Your task to perform on an android device: turn on airplane mode Image 0: 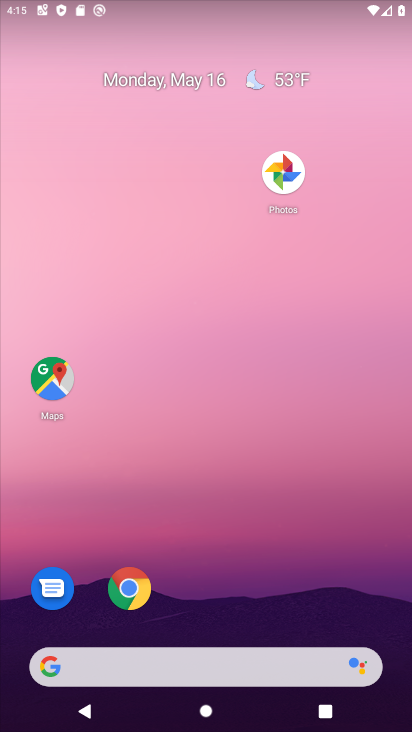
Step 0: drag from (176, 13) to (162, 673)
Your task to perform on an android device: turn on airplane mode Image 1: 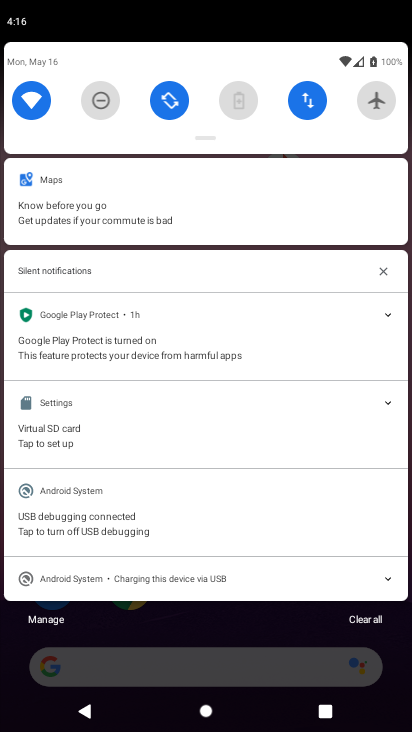
Step 1: click (383, 91)
Your task to perform on an android device: turn on airplane mode Image 2: 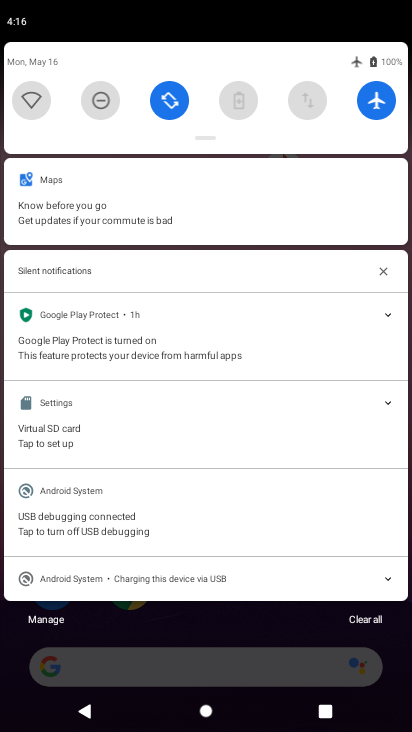
Step 2: task complete